Your task to perform on an android device: Open Android settings Image 0: 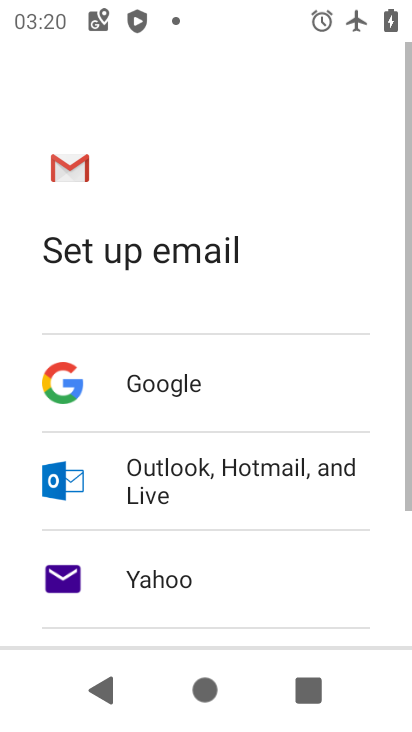
Step 0: press home button
Your task to perform on an android device: Open Android settings Image 1: 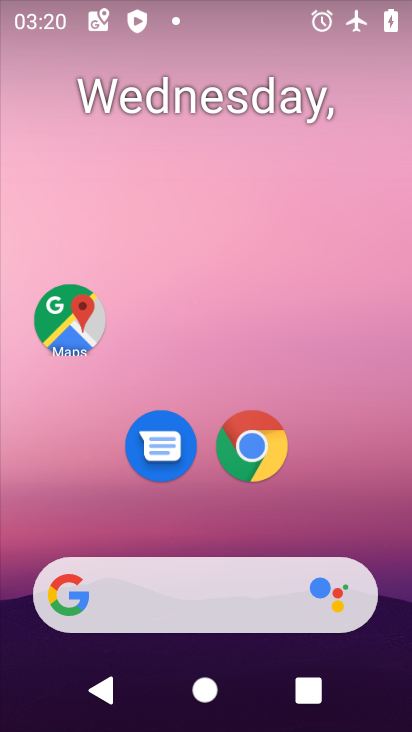
Step 1: drag from (201, 527) to (190, 151)
Your task to perform on an android device: Open Android settings Image 2: 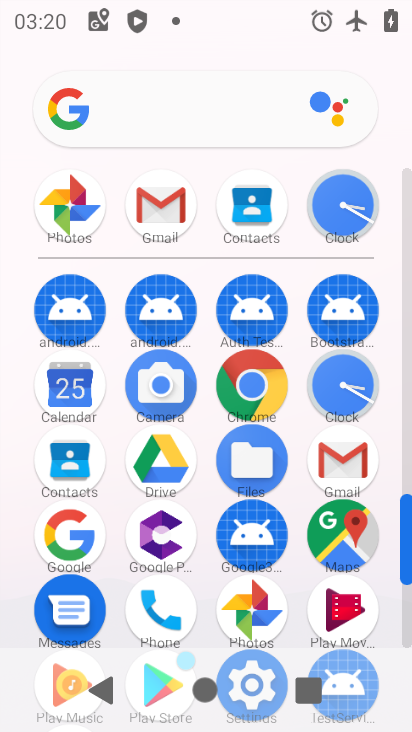
Step 2: drag from (241, 493) to (214, 219)
Your task to perform on an android device: Open Android settings Image 3: 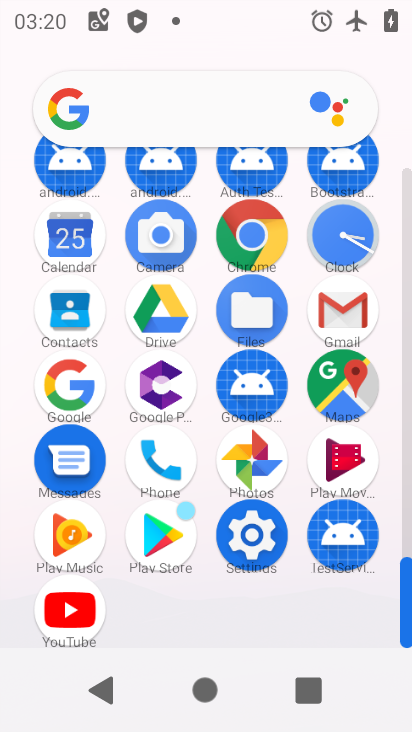
Step 3: click (258, 521)
Your task to perform on an android device: Open Android settings Image 4: 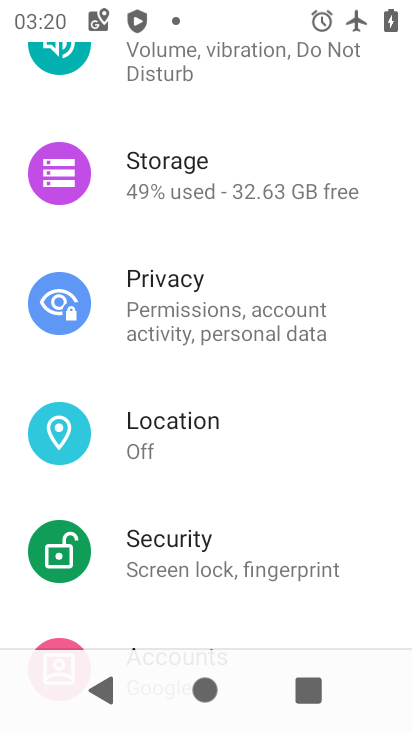
Step 4: task complete